Your task to perform on an android device: check google app version Image 0: 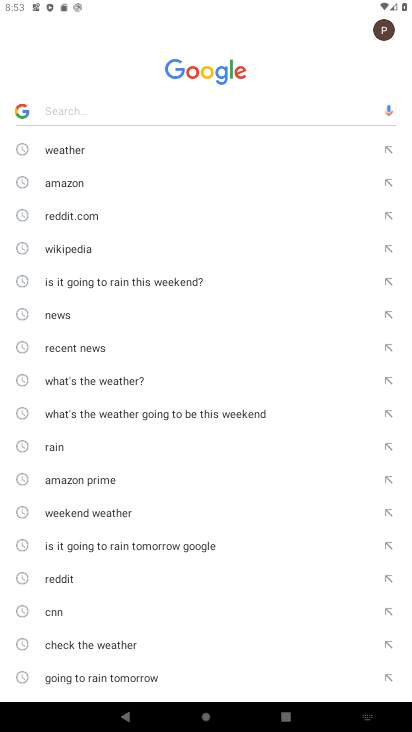
Step 0: click (393, 38)
Your task to perform on an android device: check google app version Image 1: 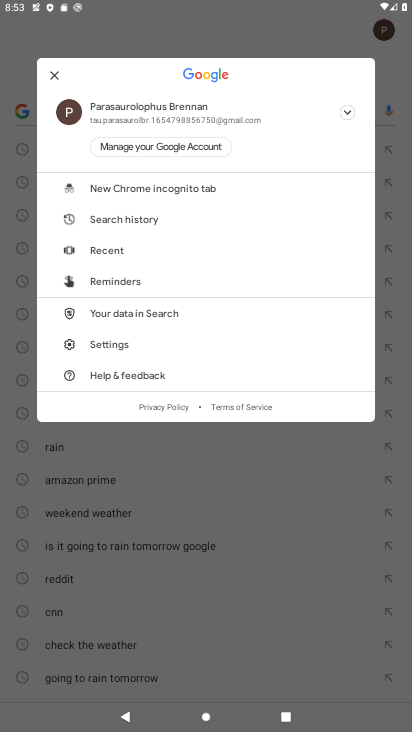
Step 1: click (137, 347)
Your task to perform on an android device: check google app version Image 2: 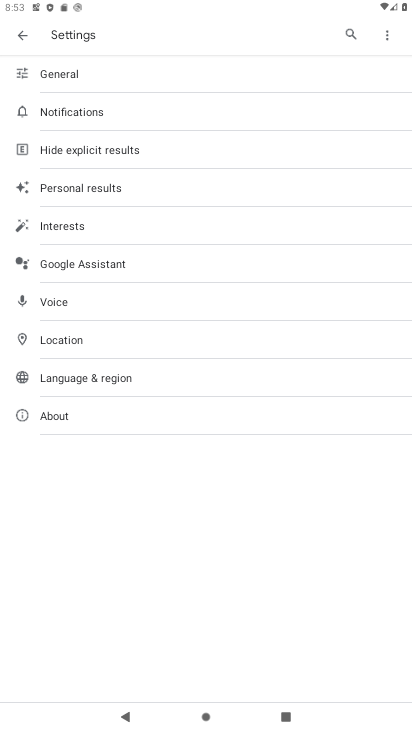
Step 2: click (73, 408)
Your task to perform on an android device: check google app version Image 3: 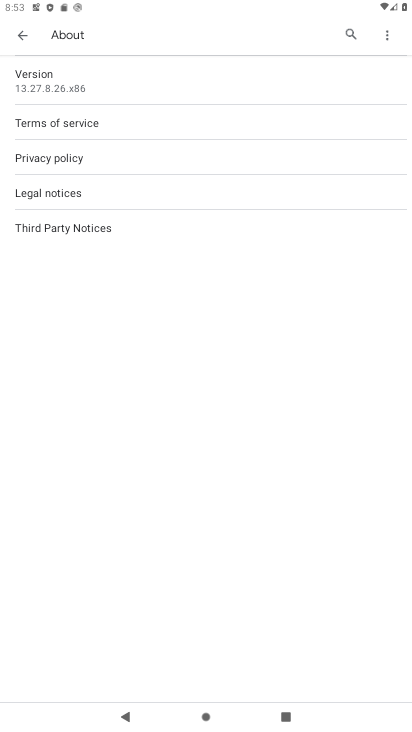
Step 3: task complete